Your task to perform on an android device: When is my next appointment? Image 0: 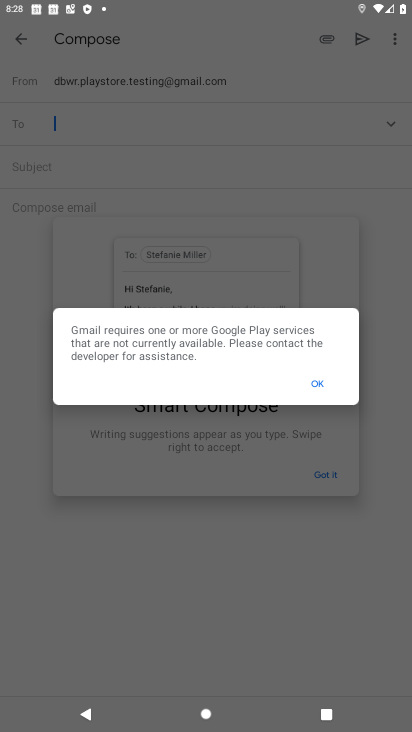
Step 0: press home button
Your task to perform on an android device: When is my next appointment? Image 1: 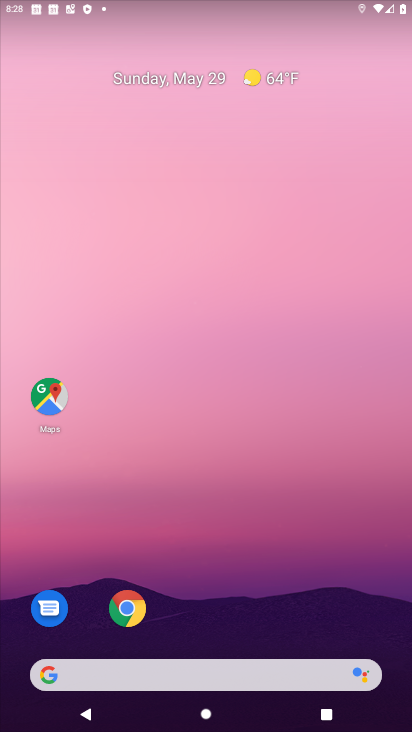
Step 1: drag from (223, 593) to (156, 139)
Your task to perform on an android device: When is my next appointment? Image 2: 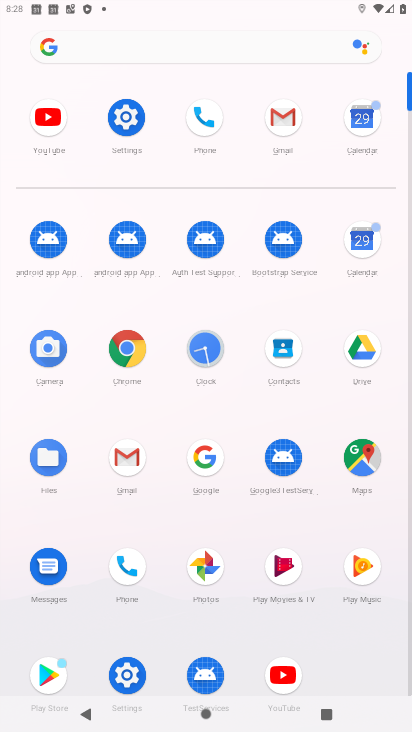
Step 2: click (361, 240)
Your task to perform on an android device: When is my next appointment? Image 3: 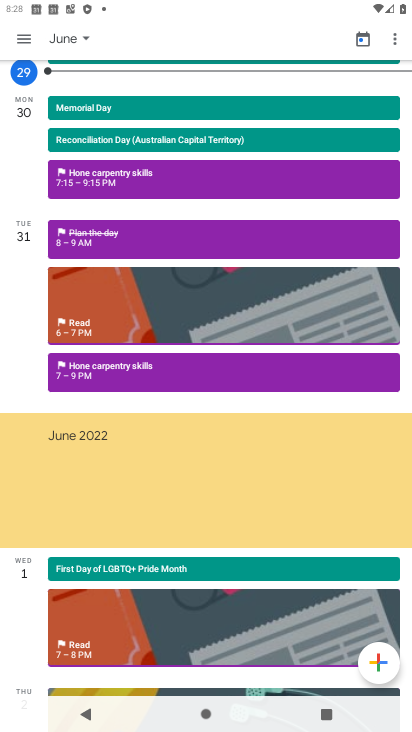
Step 3: click (72, 36)
Your task to perform on an android device: When is my next appointment? Image 4: 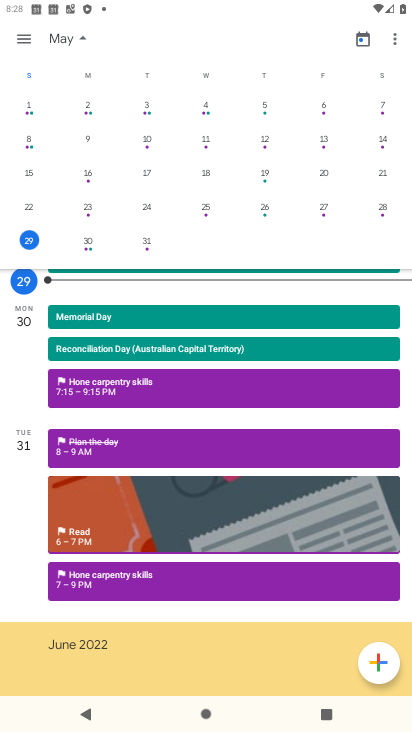
Step 4: click (28, 152)
Your task to perform on an android device: When is my next appointment? Image 5: 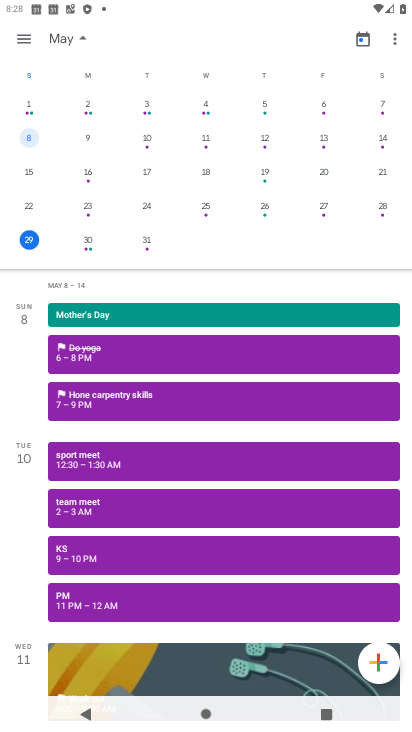
Step 5: drag from (28, 152) to (405, 201)
Your task to perform on an android device: When is my next appointment? Image 6: 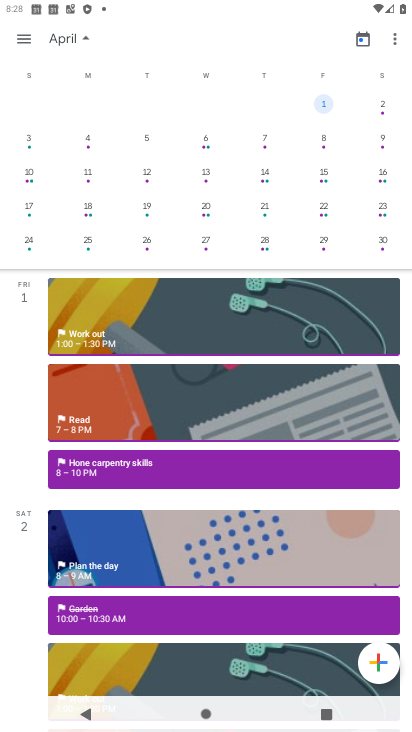
Step 6: drag from (350, 192) to (14, 102)
Your task to perform on an android device: When is my next appointment? Image 7: 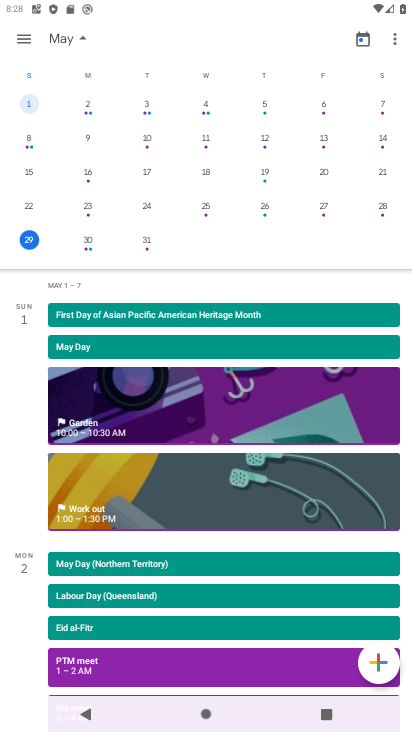
Step 7: click (32, 244)
Your task to perform on an android device: When is my next appointment? Image 8: 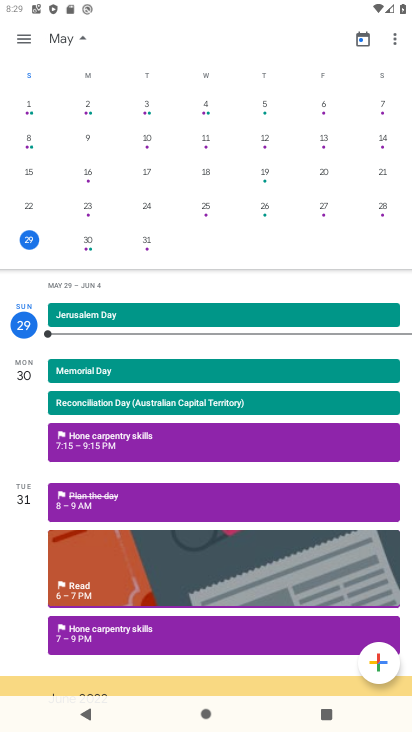
Step 8: task complete